Your task to perform on an android device: Show me popular games on the Play Store Image 0: 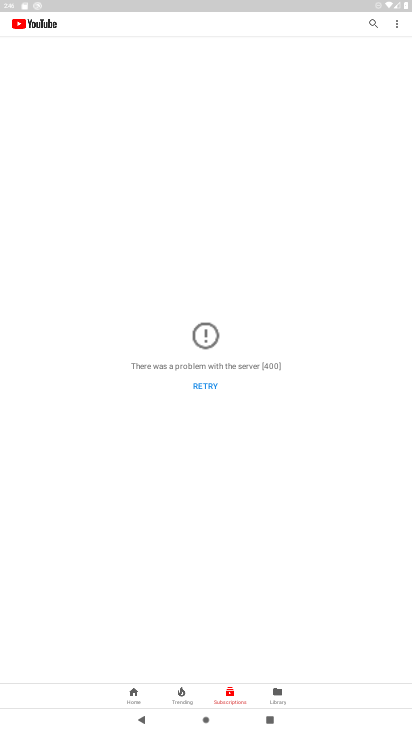
Step 0: press home button
Your task to perform on an android device: Show me popular games on the Play Store Image 1: 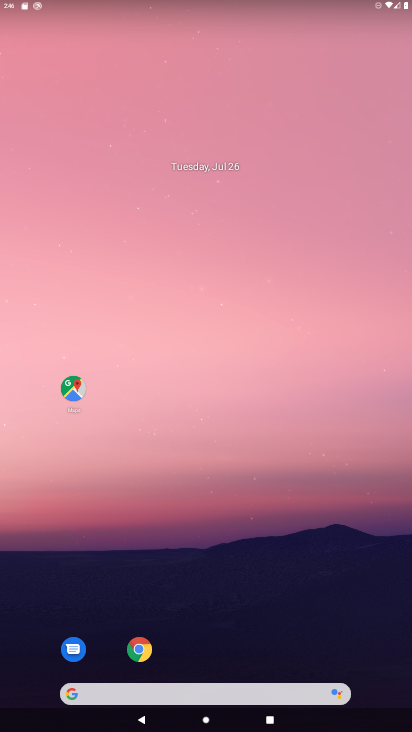
Step 1: drag from (204, 647) to (214, 189)
Your task to perform on an android device: Show me popular games on the Play Store Image 2: 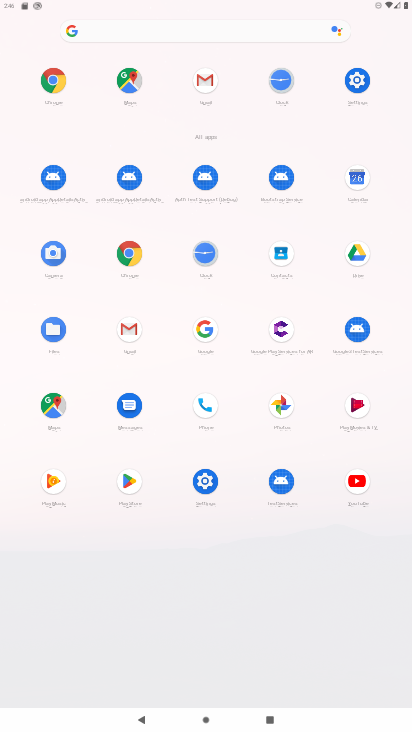
Step 2: click (138, 487)
Your task to perform on an android device: Show me popular games on the Play Store Image 3: 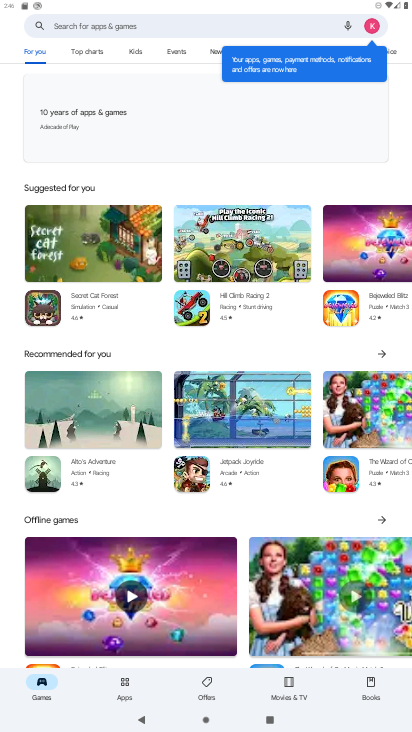
Step 3: click (106, 54)
Your task to perform on an android device: Show me popular games on the Play Store Image 4: 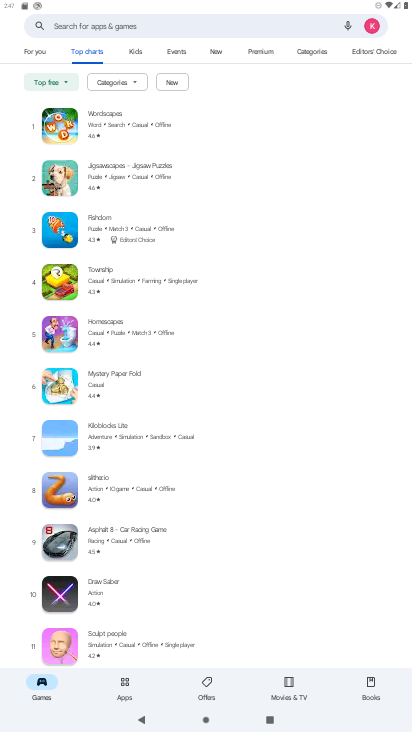
Step 4: task complete